Your task to perform on an android device: Open calendar and show me the fourth week of next month Image 0: 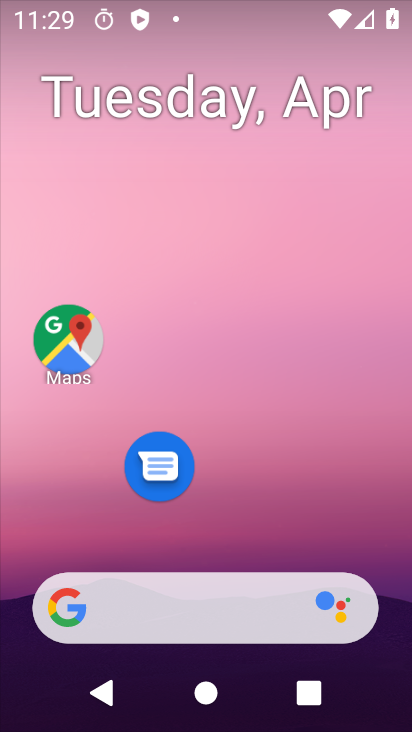
Step 0: drag from (299, 550) to (232, 127)
Your task to perform on an android device: Open calendar and show me the fourth week of next month Image 1: 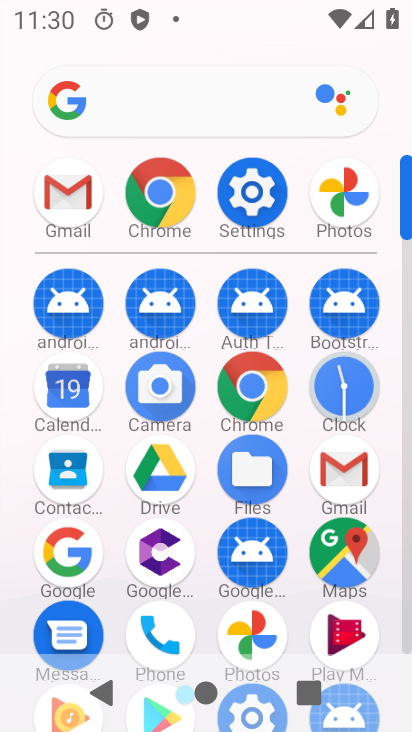
Step 1: click (77, 409)
Your task to perform on an android device: Open calendar and show me the fourth week of next month Image 2: 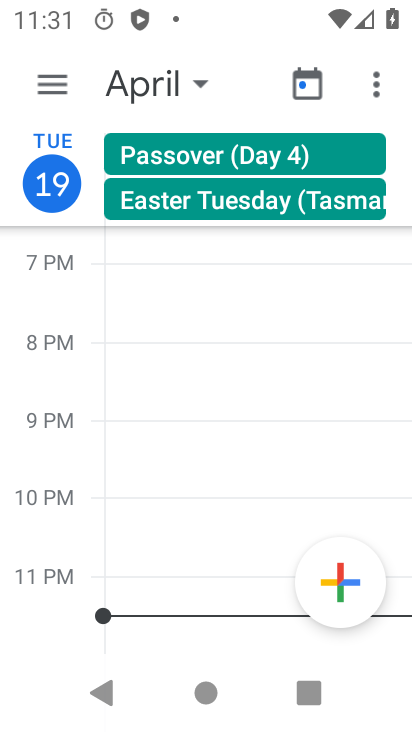
Step 2: task complete